Your task to perform on an android device: empty trash in google photos Image 0: 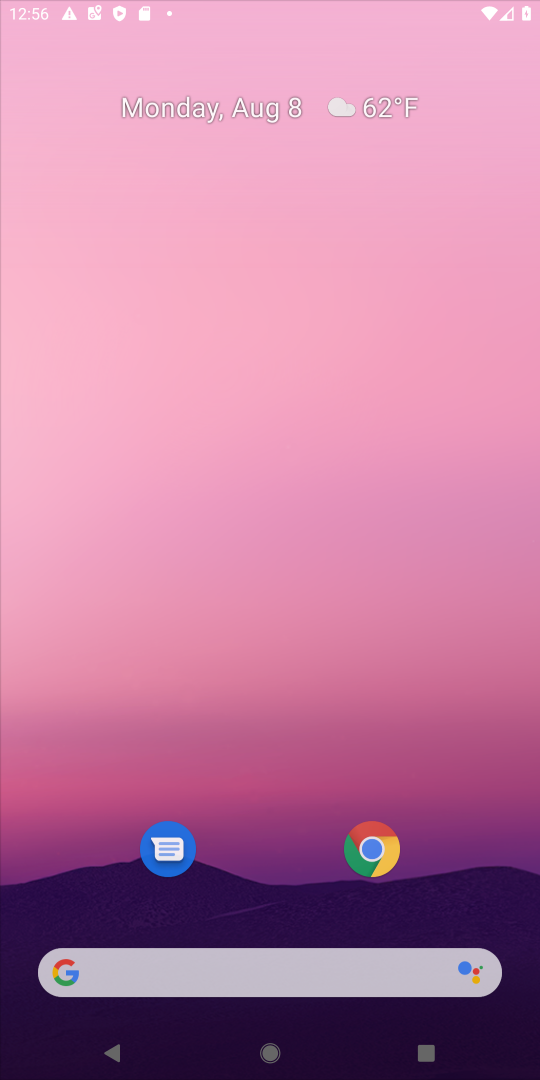
Step 0: press home button
Your task to perform on an android device: empty trash in google photos Image 1: 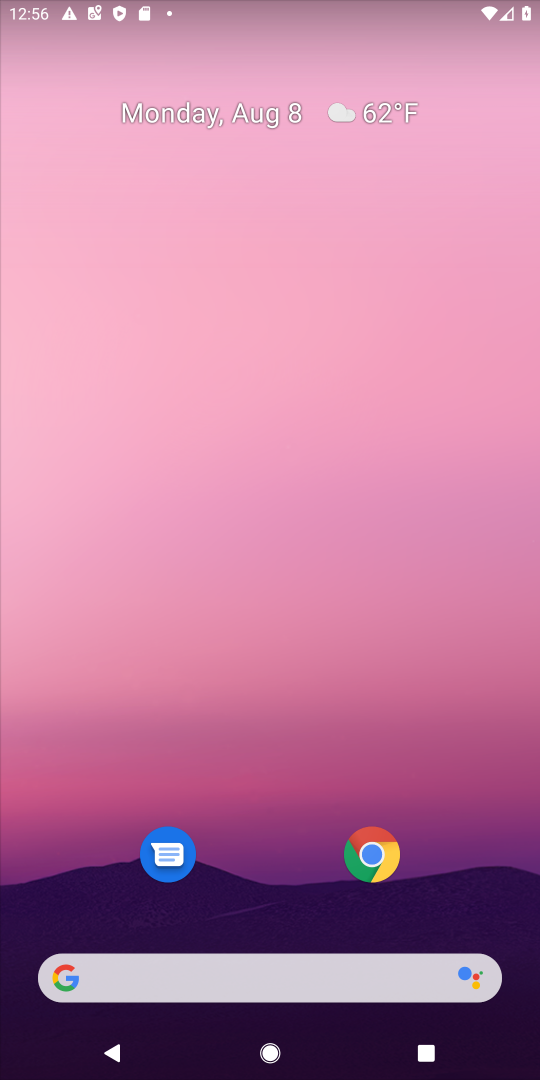
Step 1: press home button
Your task to perform on an android device: empty trash in google photos Image 2: 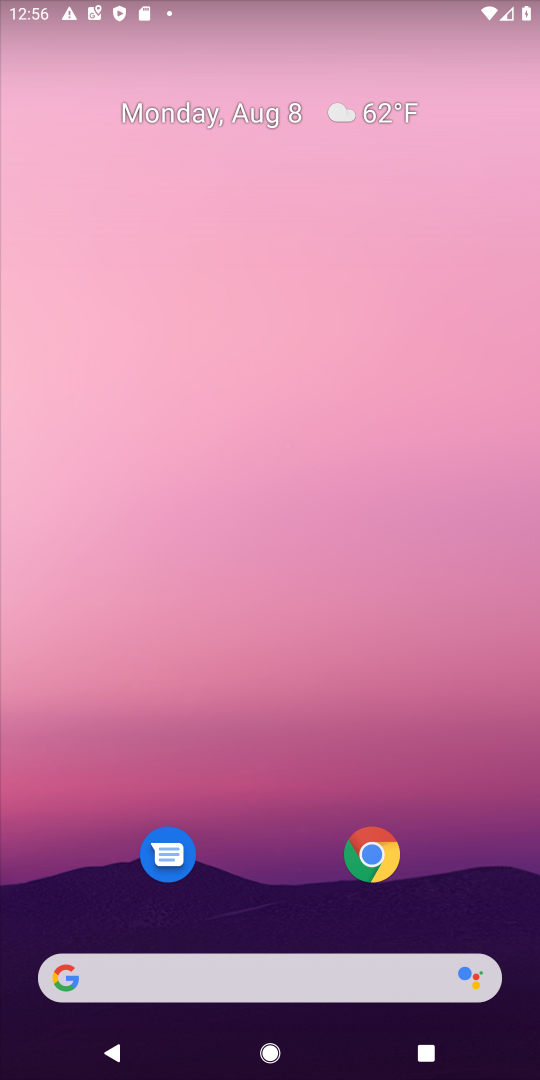
Step 2: drag from (271, 880) to (178, 47)
Your task to perform on an android device: empty trash in google photos Image 3: 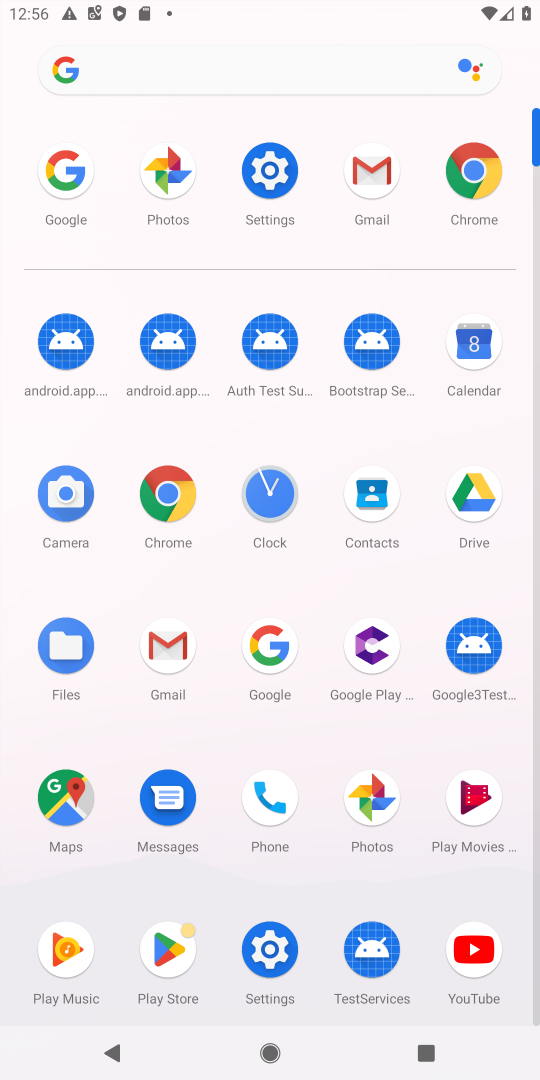
Step 3: click (377, 790)
Your task to perform on an android device: empty trash in google photos Image 4: 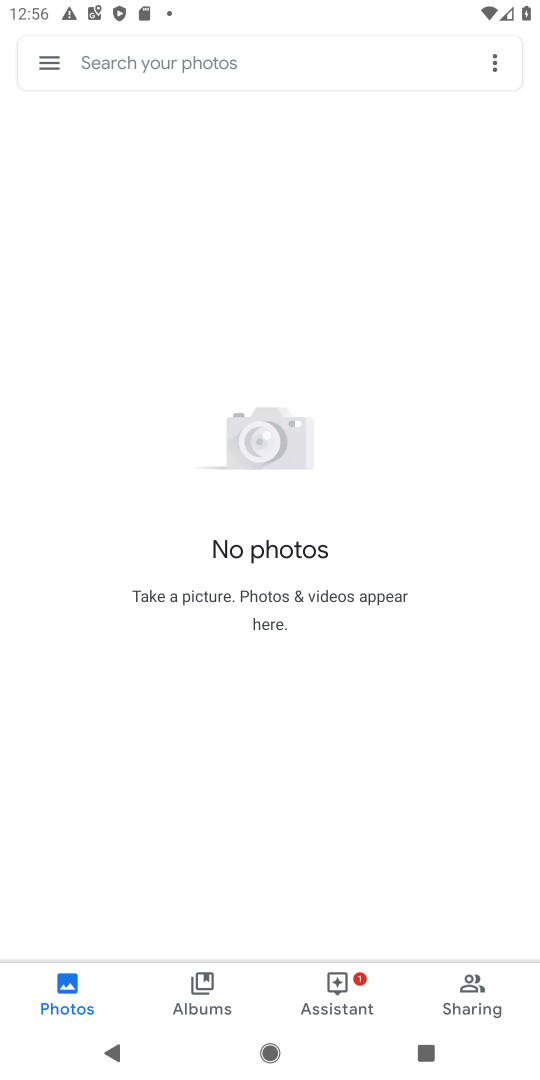
Step 4: click (493, 52)
Your task to perform on an android device: empty trash in google photos Image 5: 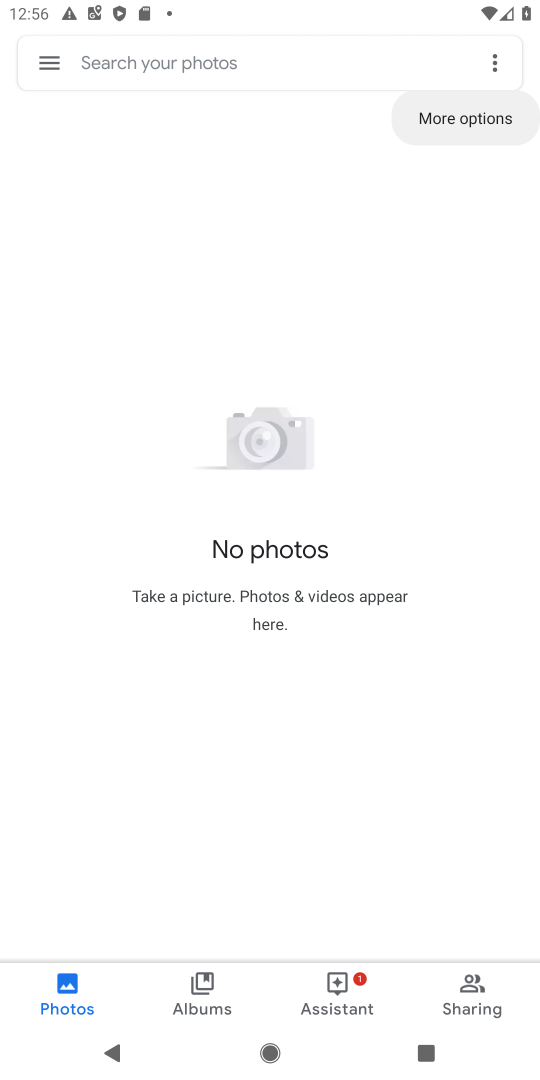
Step 5: click (493, 52)
Your task to perform on an android device: empty trash in google photos Image 6: 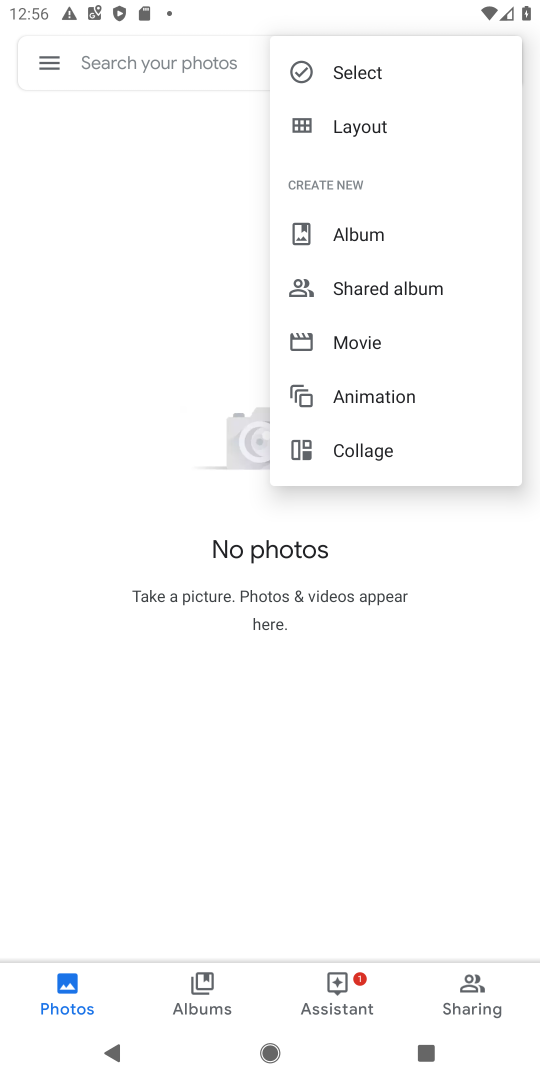
Step 6: click (54, 55)
Your task to perform on an android device: empty trash in google photos Image 7: 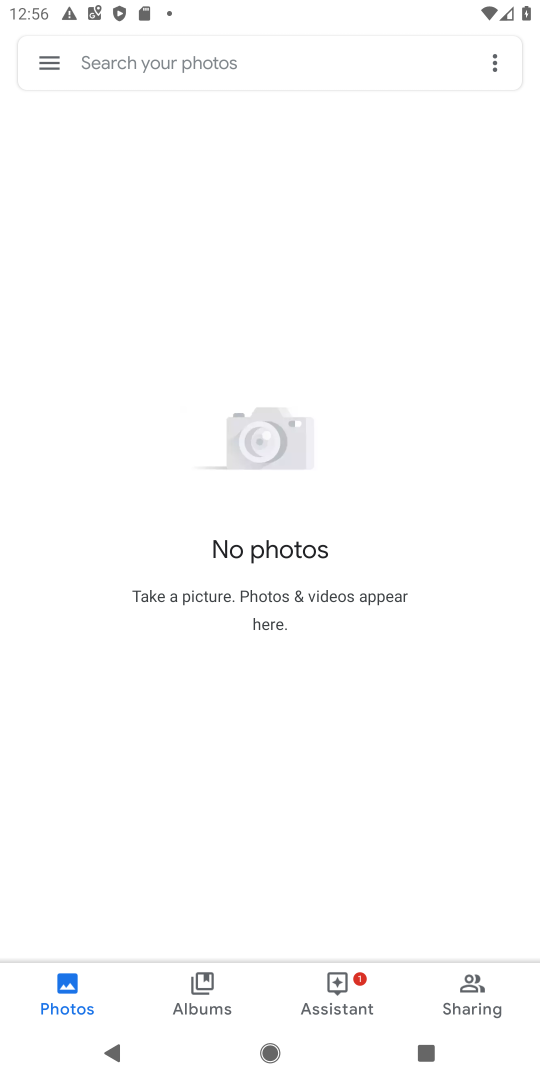
Step 7: click (55, 56)
Your task to perform on an android device: empty trash in google photos Image 8: 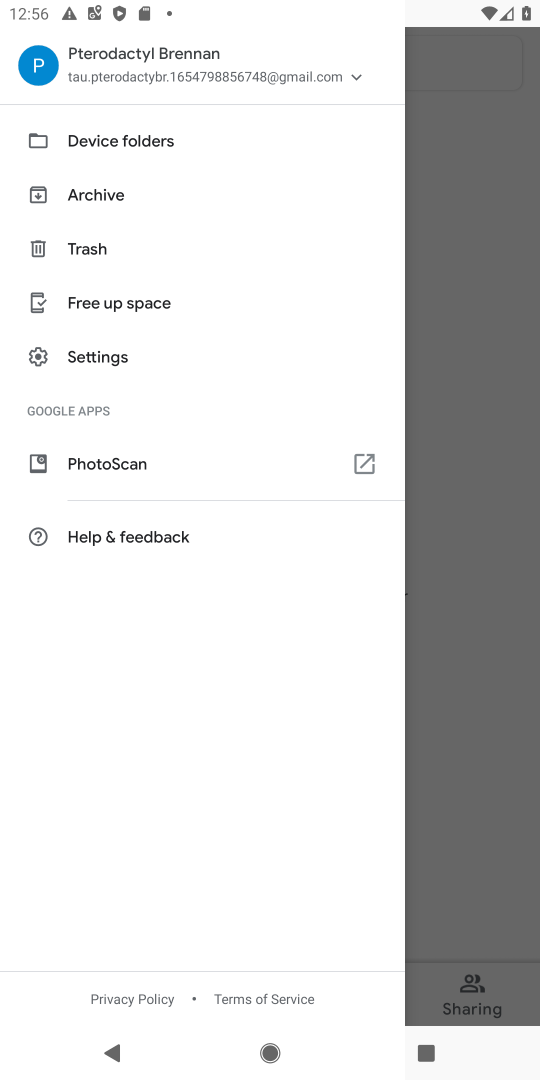
Step 8: click (78, 246)
Your task to perform on an android device: empty trash in google photos Image 9: 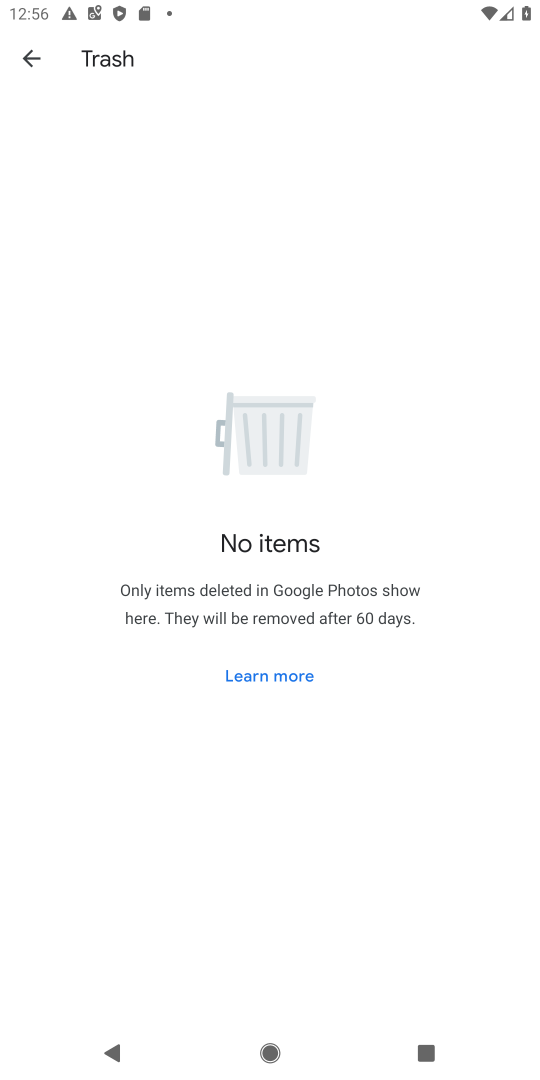
Step 9: task complete